Your task to perform on an android device: Check the news Image 0: 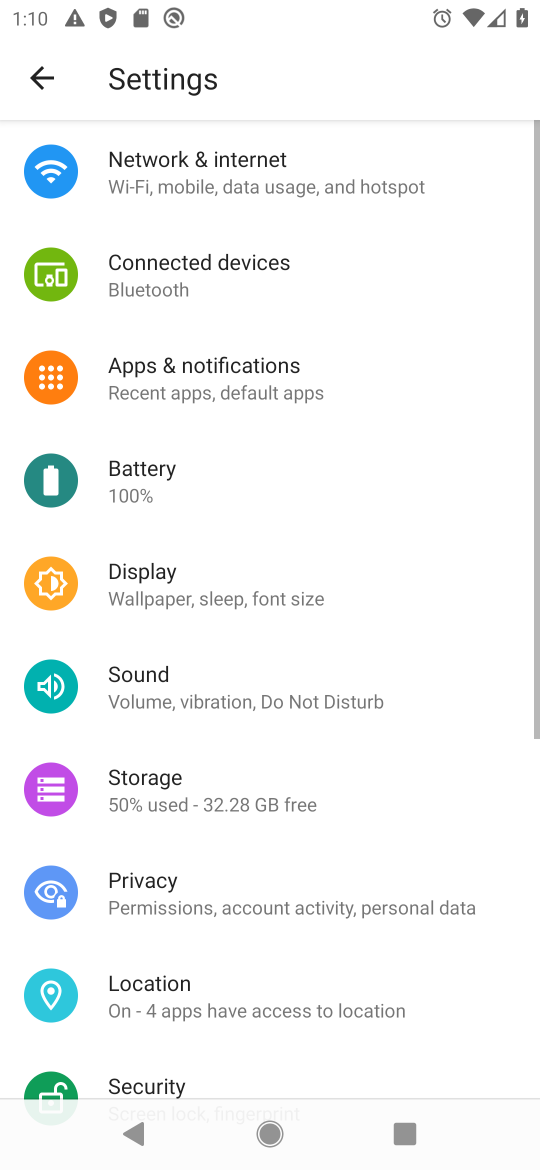
Step 0: press home button
Your task to perform on an android device: Check the news Image 1: 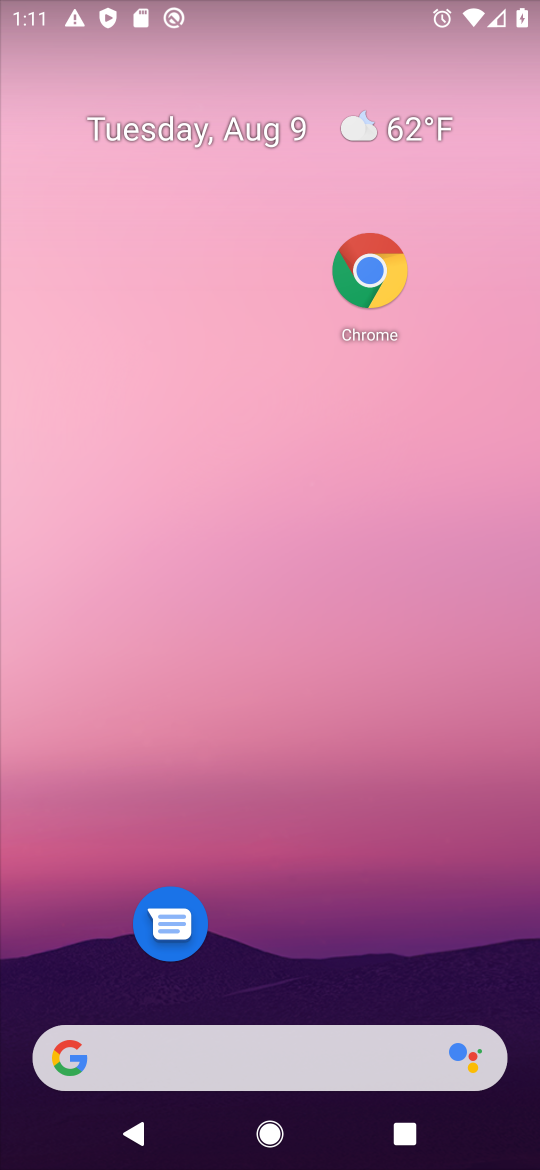
Step 1: click (274, 1084)
Your task to perform on an android device: Check the news Image 2: 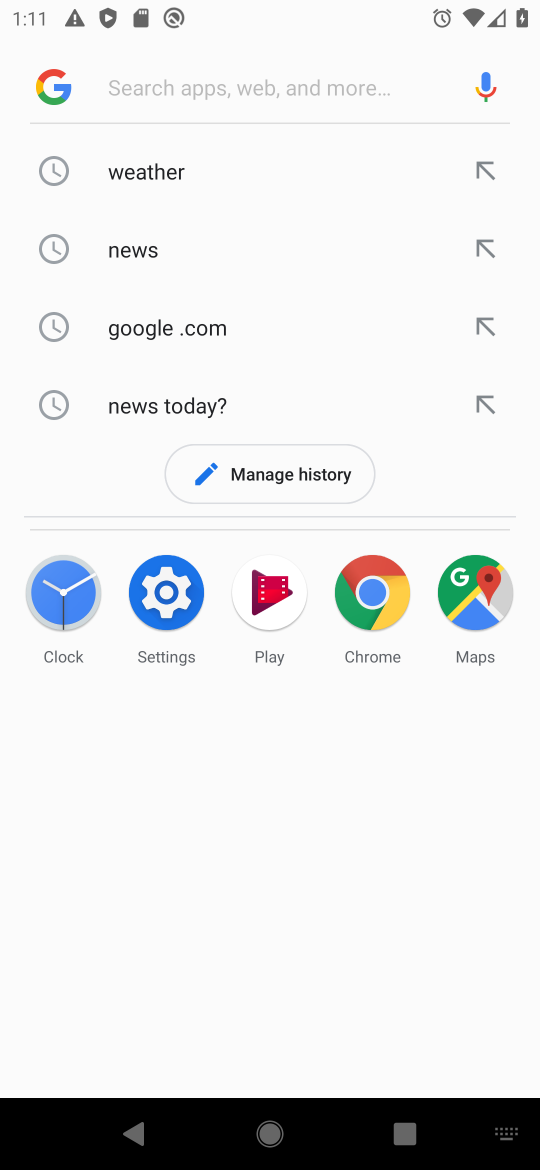
Step 2: click (240, 239)
Your task to perform on an android device: Check the news Image 3: 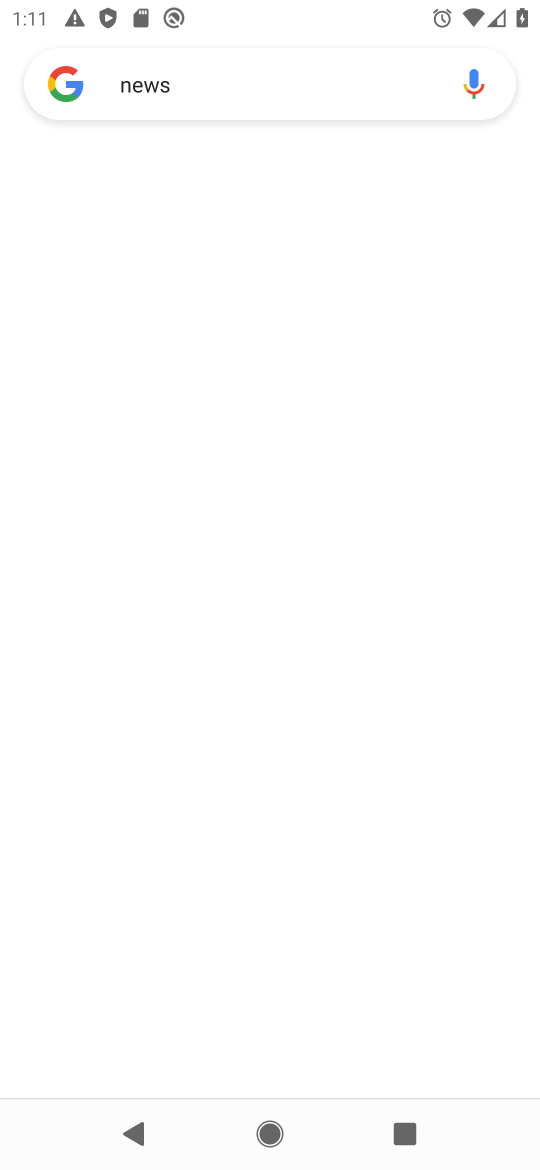
Step 3: task complete